Your task to perform on an android device: Open Chrome and go to the settings page Image 0: 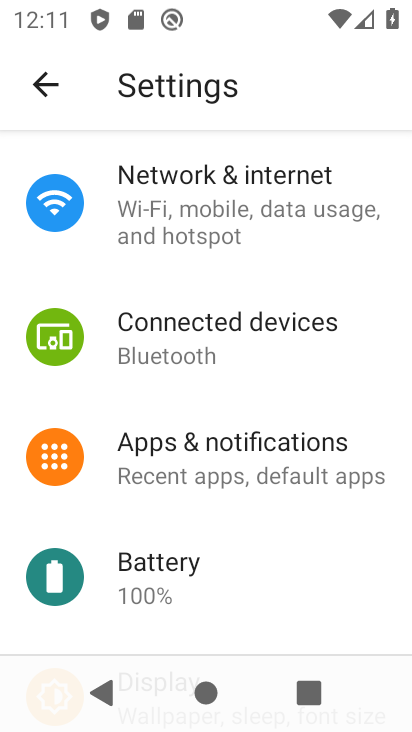
Step 0: press home button
Your task to perform on an android device: Open Chrome and go to the settings page Image 1: 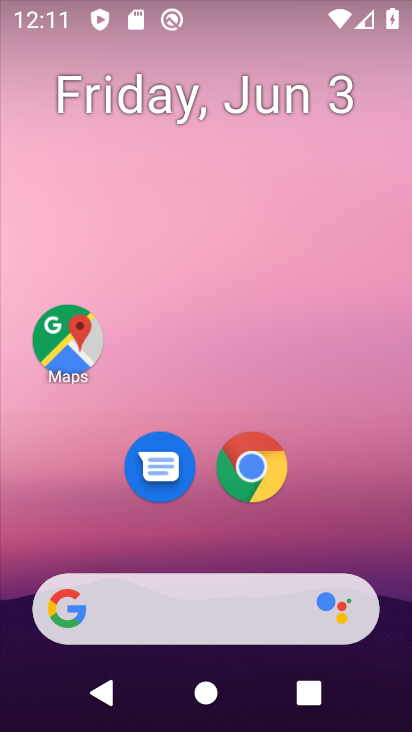
Step 1: click (255, 502)
Your task to perform on an android device: Open Chrome and go to the settings page Image 2: 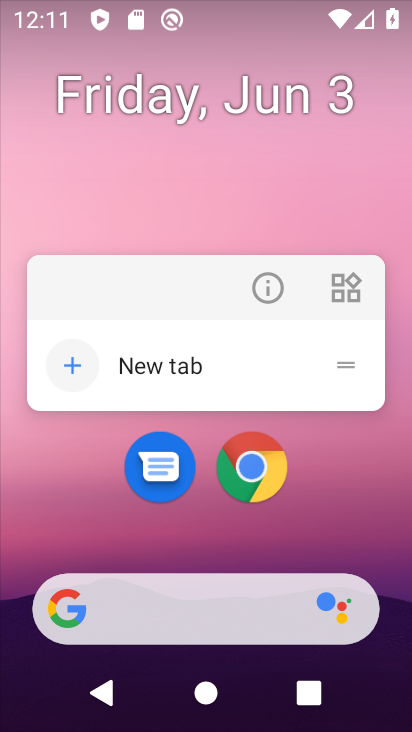
Step 2: click (254, 495)
Your task to perform on an android device: Open Chrome and go to the settings page Image 3: 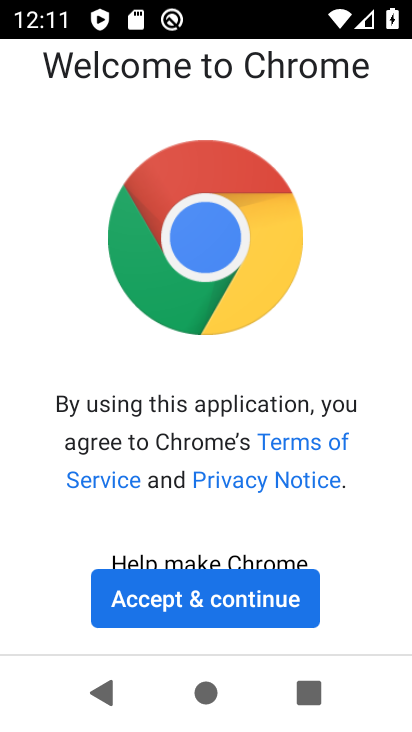
Step 3: click (274, 600)
Your task to perform on an android device: Open Chrome and go to the settings page Image 4: 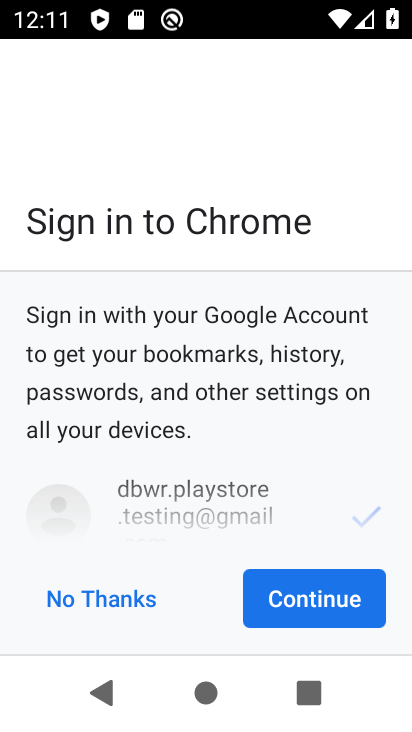
Step 4: click (369, 611)
Your task to perform on an android device: Open Chrome and go to the settings page Image 5: 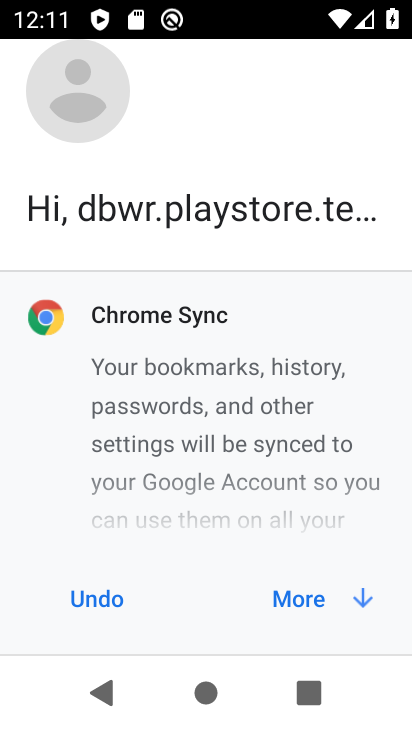
Step 5: click (353, 613)
Your task to perform on an android device: Open Chrome and go to the settings page Image 6: 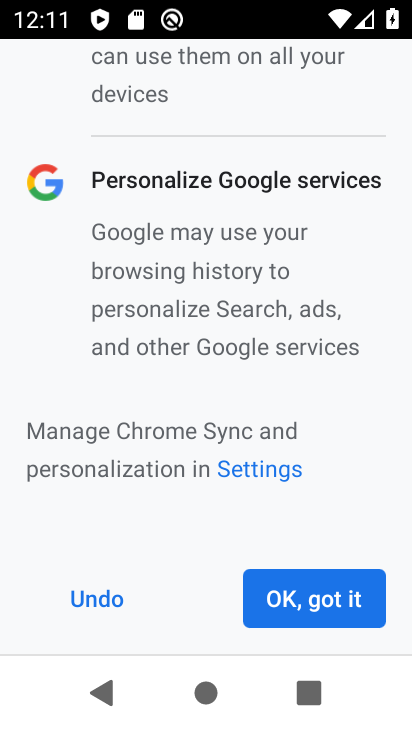
Step 6: click (358, 609)
Your task to perform on an android device: Open Chrome and go to the settings page Image 7: 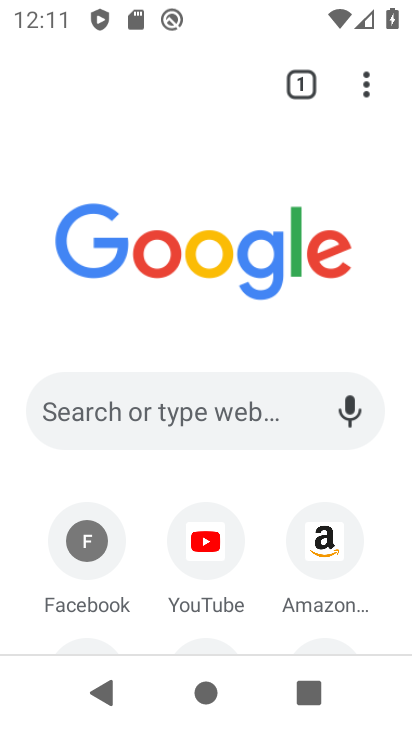
Step 7: task complete